Your task to perform on an android device: toggle priority inbox in the gmail app Image 0: 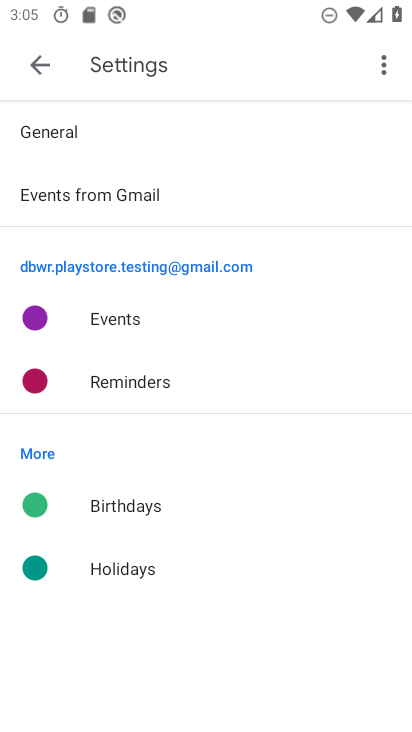
Step 0: press home button
Your task to perform on an android device: toggle priority inbox in the gmail app Image 1: 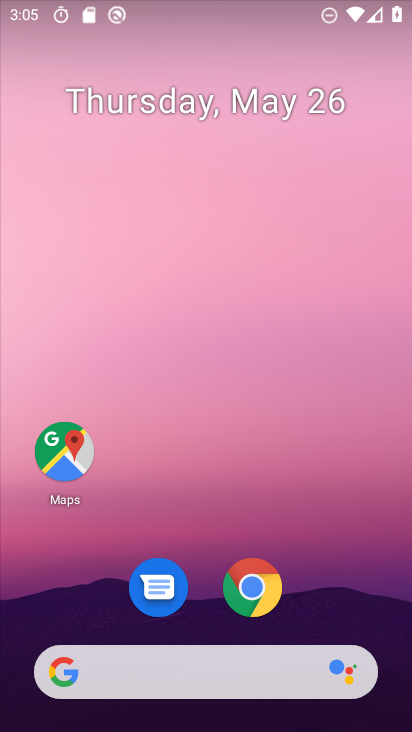
Step 1: click (254, 584)
Your task to perform on an android device: toggle priority inbox in the gmail app Image 2: 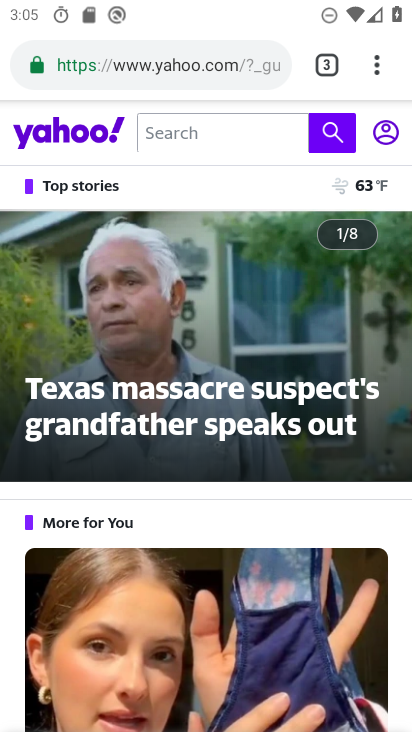
Step 2: press home button
Your task to perform on an android device: toggle priority inbox in the gmail app Image 3: 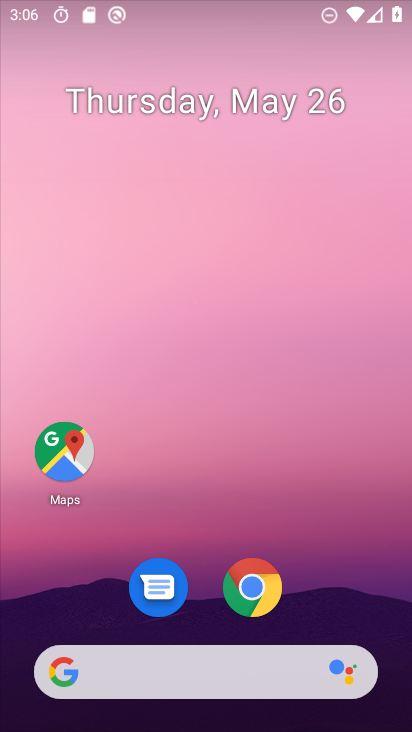
Step 3: drag from (315, 529) to (335, 106)
Your task to perform on an android device: toggle priority inbox in the gmail app Image 4: 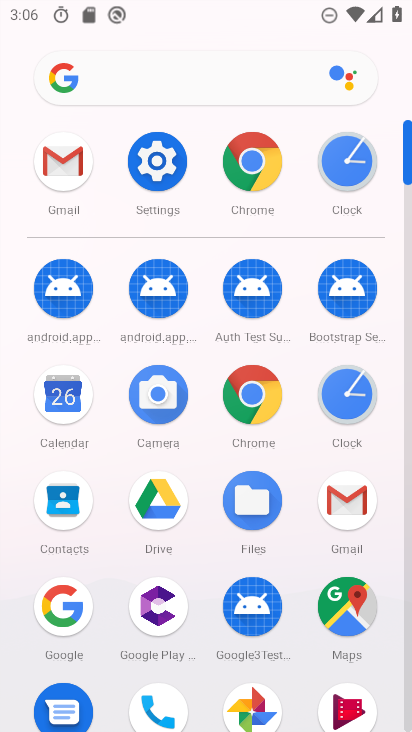
Step 4: click (51, 155)
Your task to perform on an android device: toggle priority inbox in the gmail app Image 5: 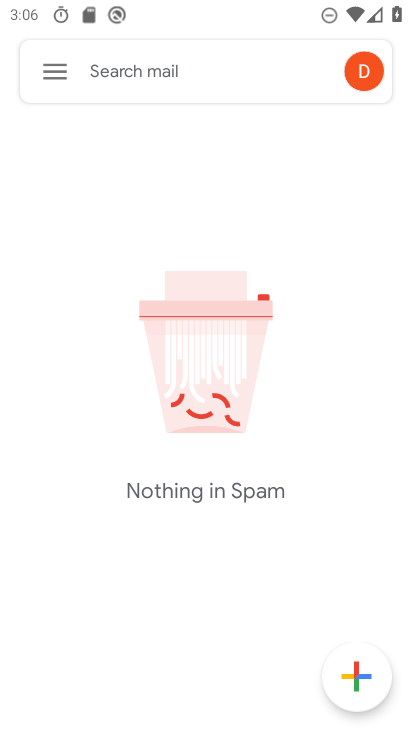
Step 5: click (55, 69)
Your task to perform on an android device: toggle priority inbox in the gmail app Image 6: 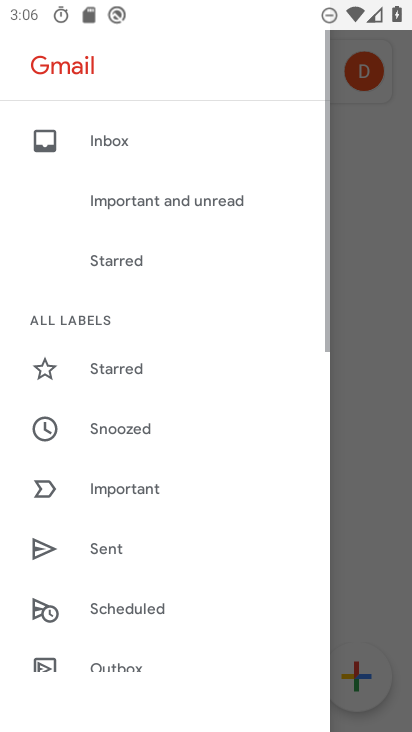
Step 6: drag from (128, 594) to (204, 122)
Your task to perform on an android device: toggle priority inbox in the gmail app Image 7: 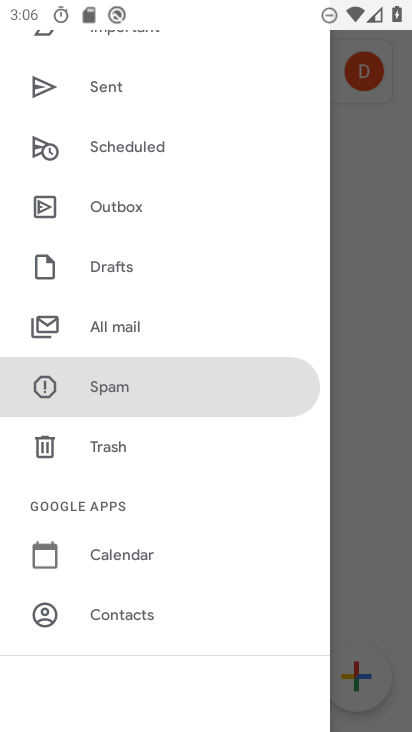
Step 7: drag from (112, 593) to (196, 220)
Your task to perform on an android device: toggle priority inbox in the gmail app Image 8: 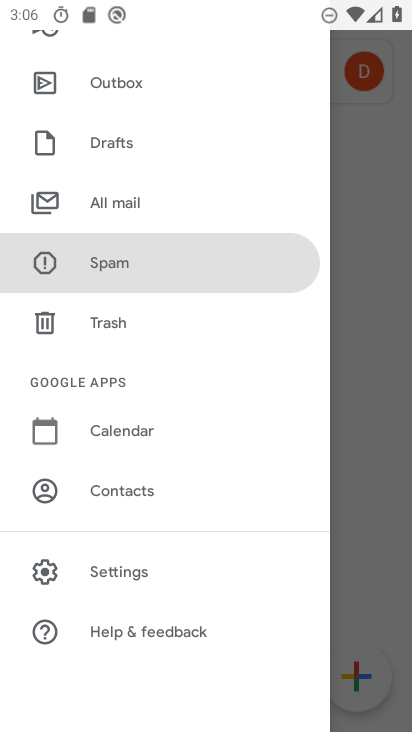
Step 8: click (124, 571)
Your task to perform on an android device: toggle priority inbox in the gmail app Image 9: 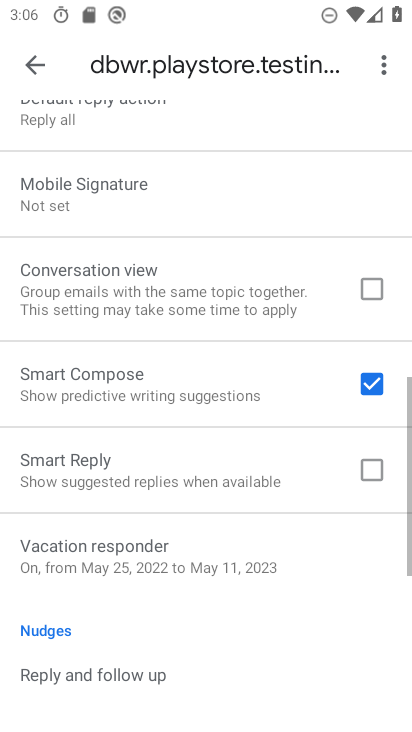
Step 9: drag from (167, 282) to (155, 673)
Your task to perform on an android device: toggle priority inbox in the gmail app Image 10: 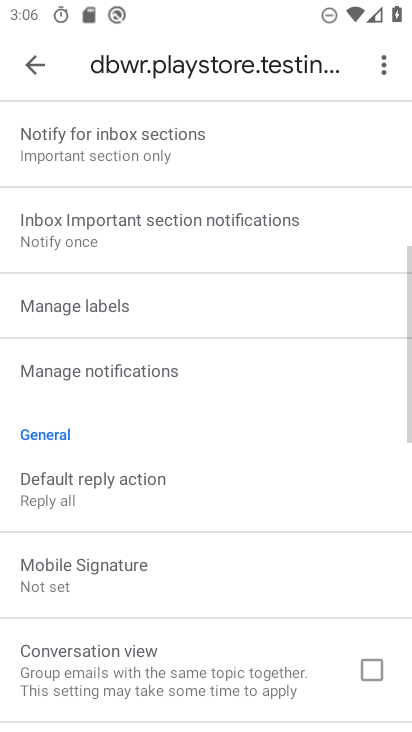
Step 10: drag from (182, 322) to (193, 613)
Your task to perform on an android device: toggle priority inbox in the gmail app Image 11: 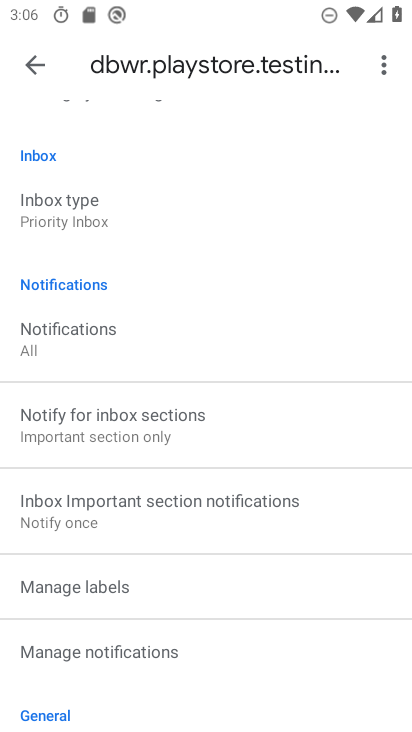
Step 11: click (86, 206)
Your task to perform on an android device: toggle priority inbox in the gmail app Image 12: 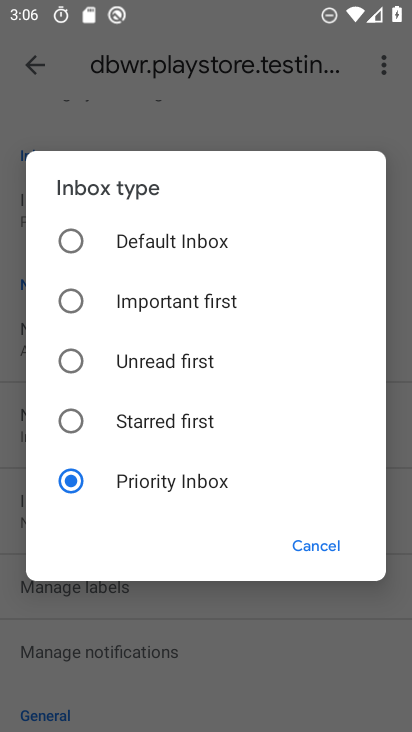
Step 12: click (169, 256)
Your task to perform on an android device: toggle priority inbox in the gmail app Image 13: 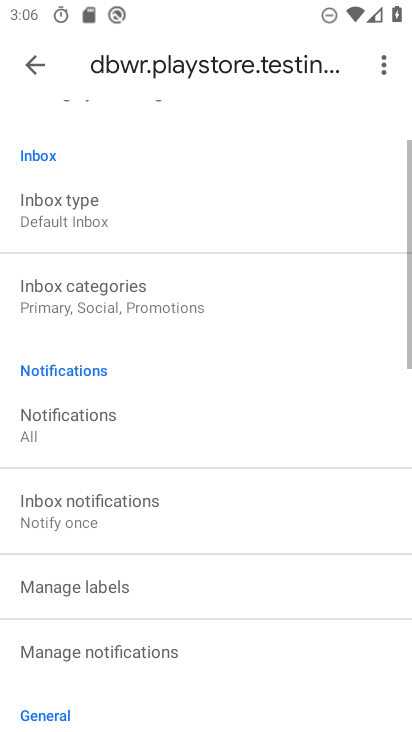
Step 13: task complete